Your task to perform on an android device: turn on bluetooth scan Image 0: 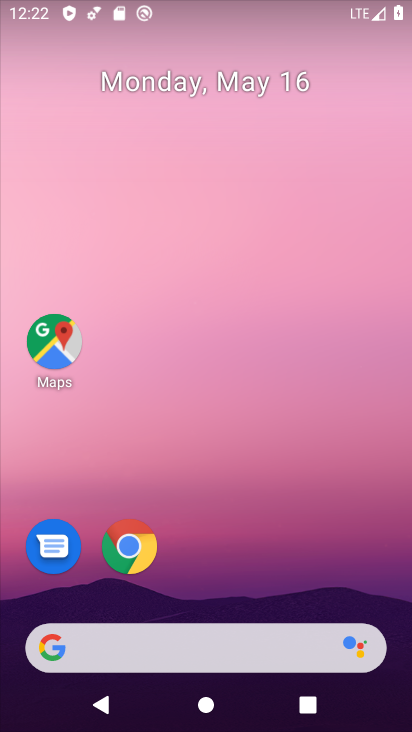
Step 0: press home button
Your task to perform on an android device: turn on bluetooth scan Image 1: 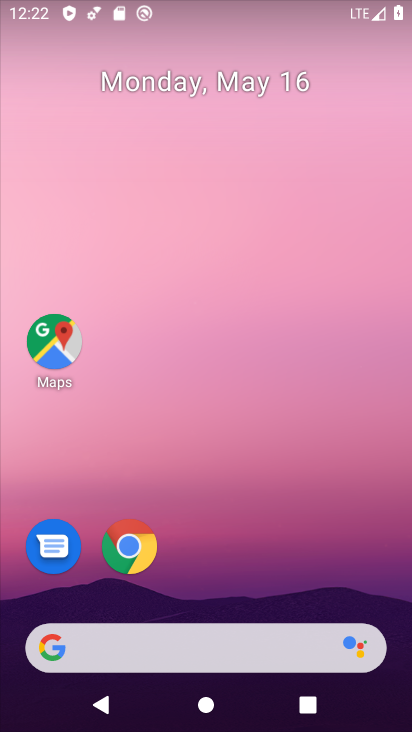
Step 1: drag from (297, 546) to (305, 93)
Your task to perform on an android device: turn on bluetooth scan Image 2: 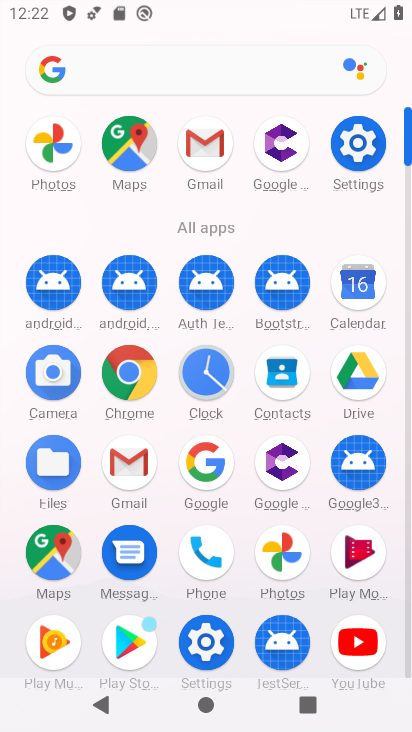
Step 2: click (358, 141)
Your task to perform on an android device: turn on bluetooth scan Image 3: 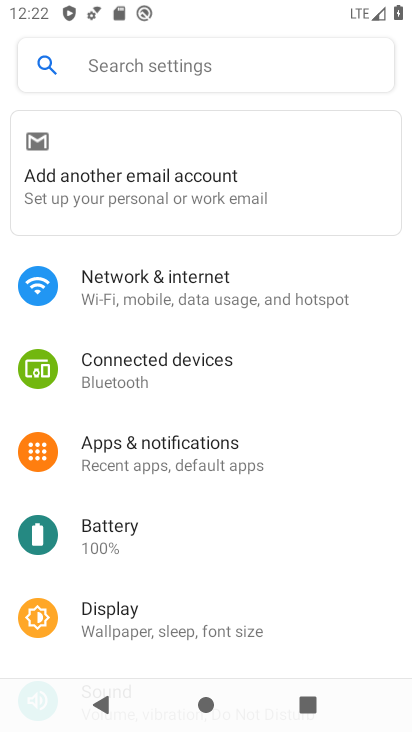
Step 3: drag from (172, 607) to (273, 216)
Your task to perform on an android device: turn on bluetooth scan Image 4: 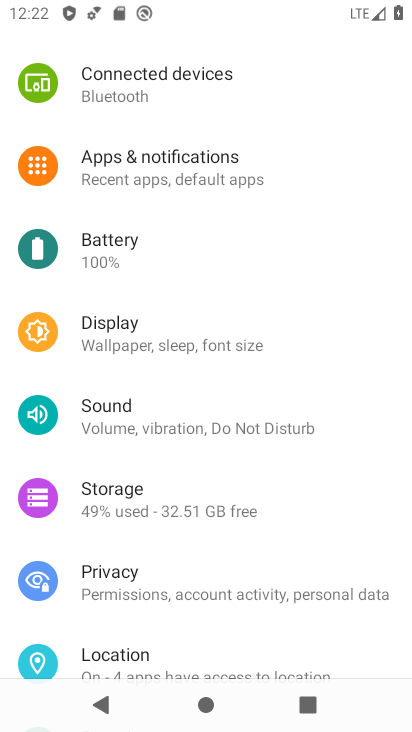
Step 4: drag from (146, 556) to (228, 314)
Your task to perform on an android device: turn on bluetooth scan Image 5: 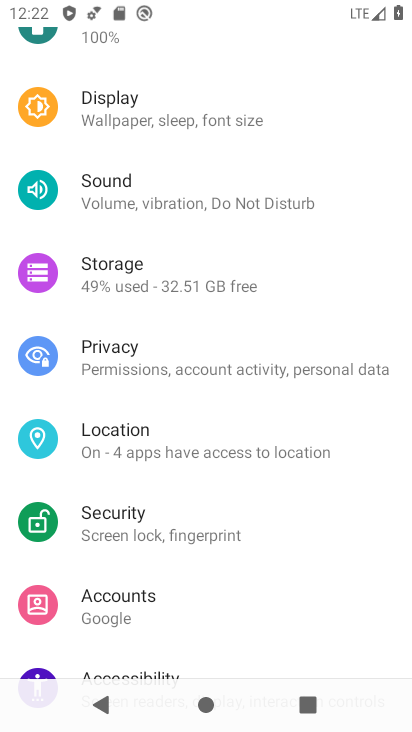
Step 5: click (162, 437)
Your task to perform on an android device: turn on bluetooth scan Image 6: 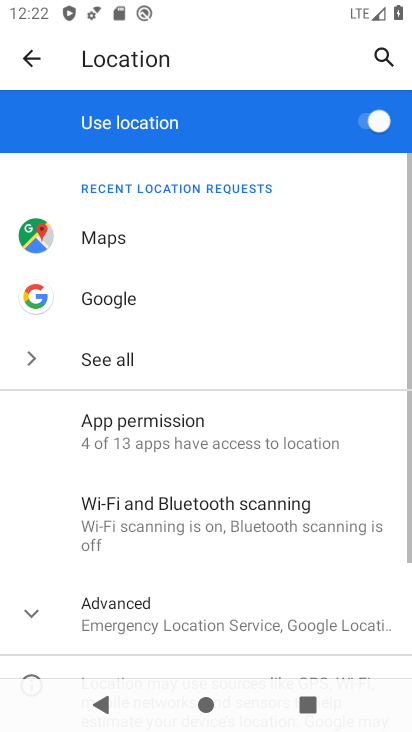
Step 6: drag from (270, 582) to (357, 273)
Your task to perform on an android device: turn on bluetooth scan Image 7: 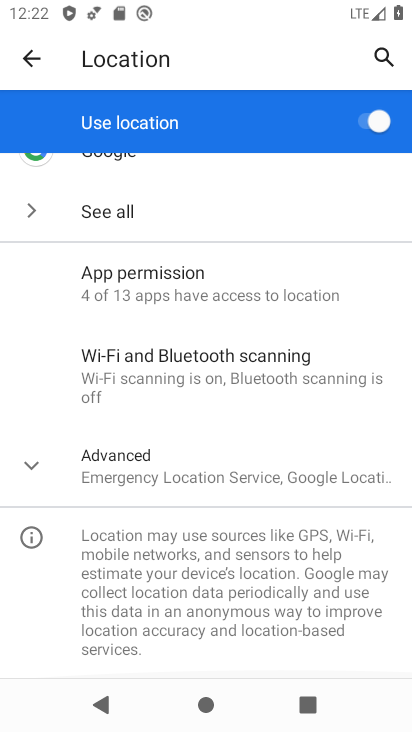
Step 7: click (147, 457)
Your task to perform on an android device: turn on bluetooth scan Image 8: 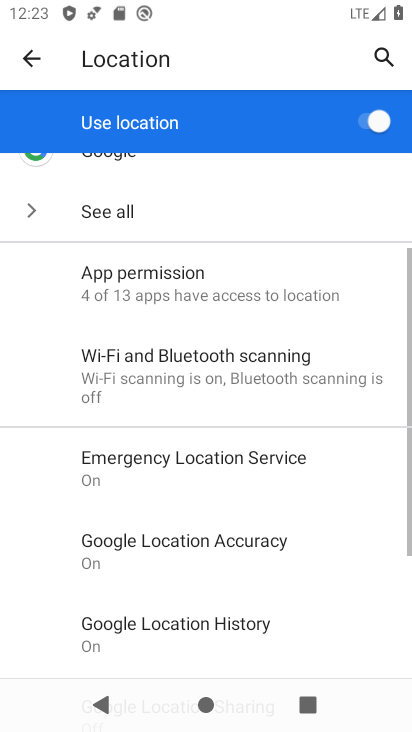
Step 8: drag from (308, 554) to (385, 233)
Your task to perform on an android device: turn on bluetooth scan Image 9: 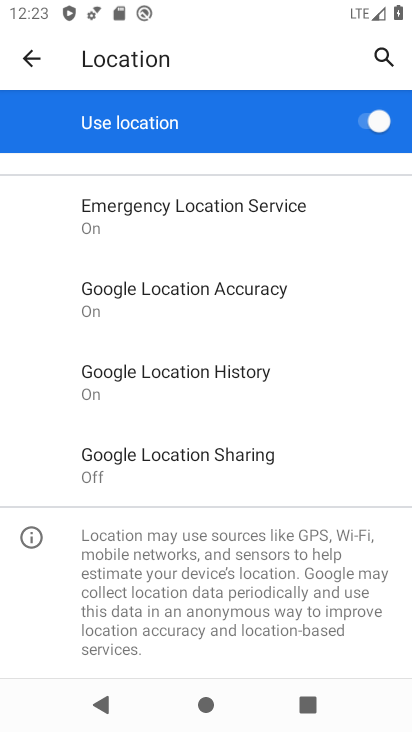
Step 9: drag from (321, 295) to (237, 598)
Your task to perform on an android device: turn on bluetooth scan Image 10: 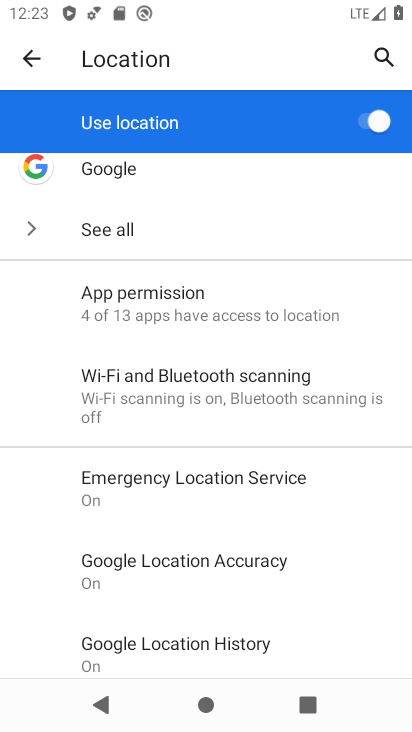
Step 10: click (259, 401)
Your task to perform on an android device: turn on bluetooth scan Image 11: 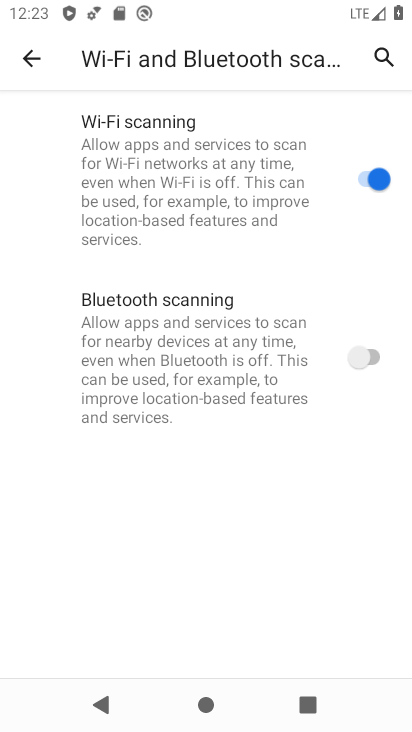
Step 11: click (355, 354)
Your task to perform on an android device: turn on bluetooth scan Image 12: 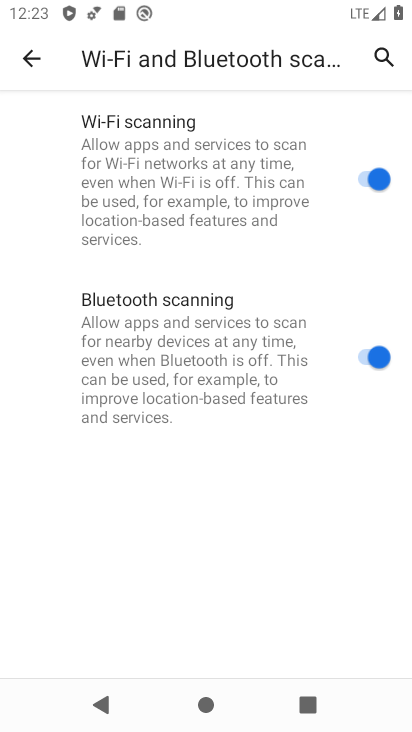
Step 12: task complete